Your task to perform on an android device: Go to CNN.com Image 0: 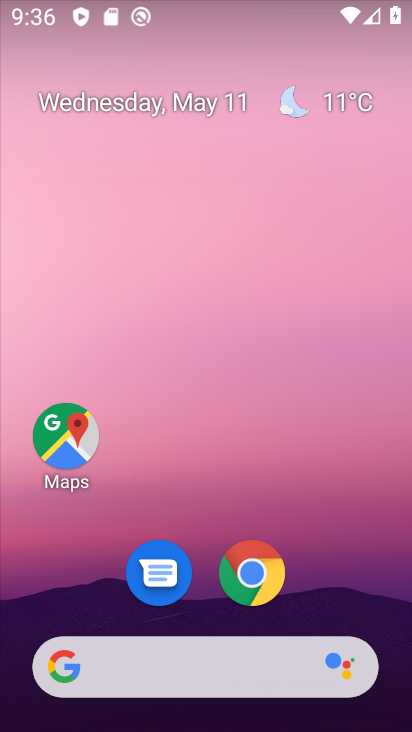
Step 0: drag from (355, 612) to (202, 14)
Your task to perform on an android device: Go to CNN.com Image 1: 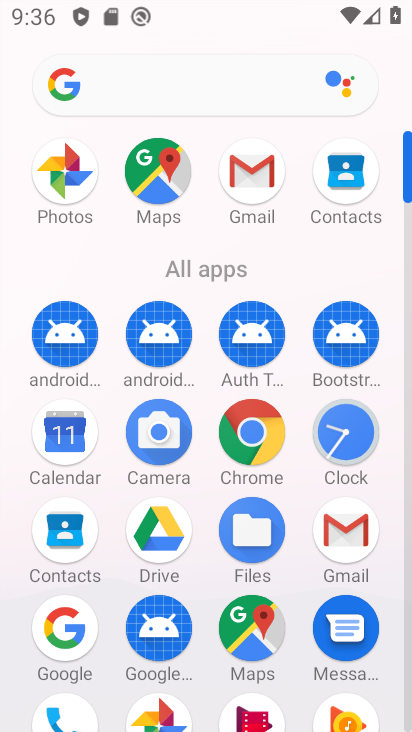
Step 1: drag from (280, 475) to (248, 78)
Your task to perform on an android device: Go to CNN.com Image 2: 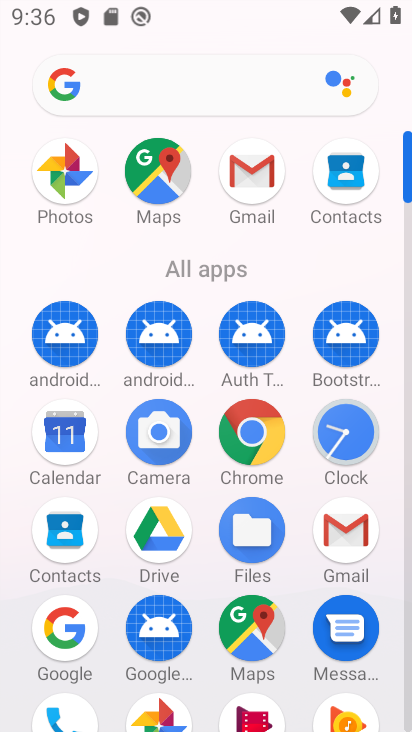
Step 2: drag from (307, 499) to (281, 50)
Your task to perform on an android device: Go to CNN.com Image 3: 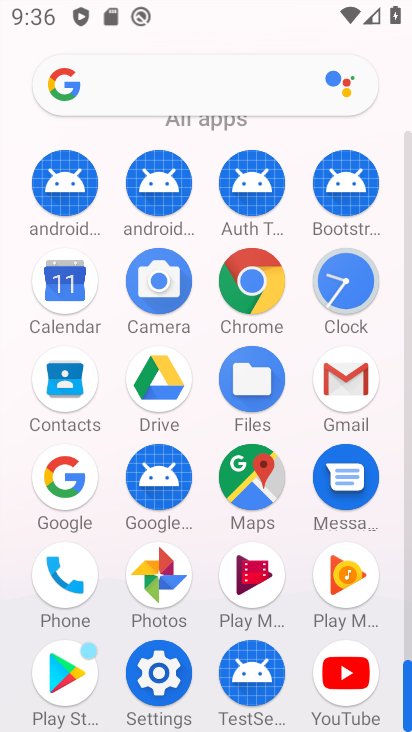
Step 3: drag from (295, 276) to (307, 607)
Your task to perform on an android device: Go to CNN.com Image 4: 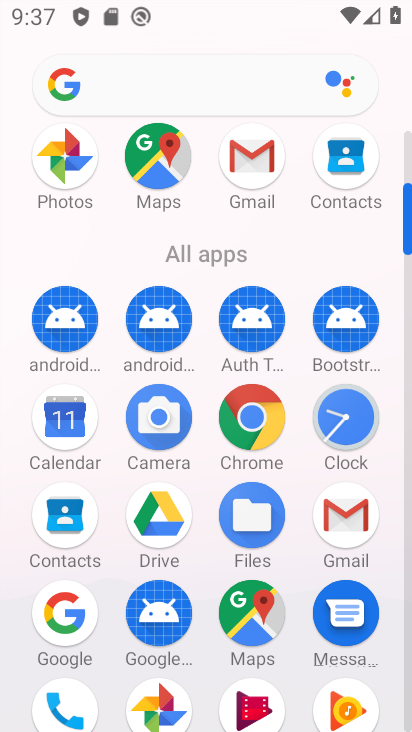
Step 4: click (249, 423)
Your task to perform on an android device: Go to CNN.com Image 5: 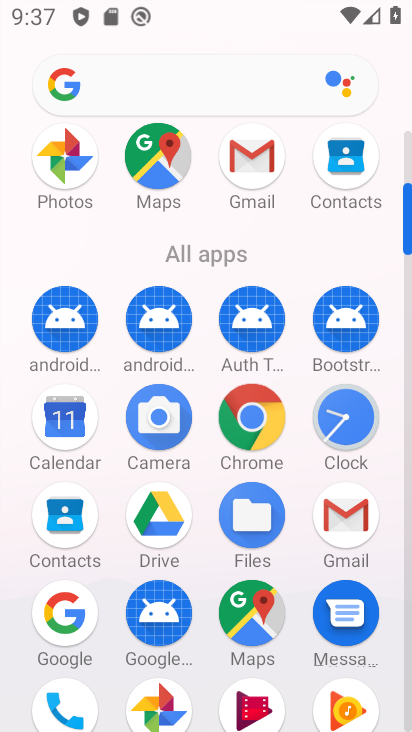
Step 5: click (251, 421)
Your task to perform on an android device: Go to CNN.com Image 6: 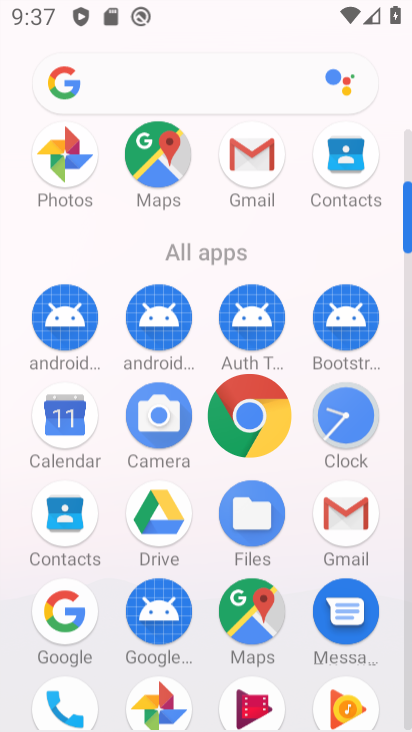
Step 6: click (252, 416)
Your task to perform on an android device: Go to CNN.com Image 7: 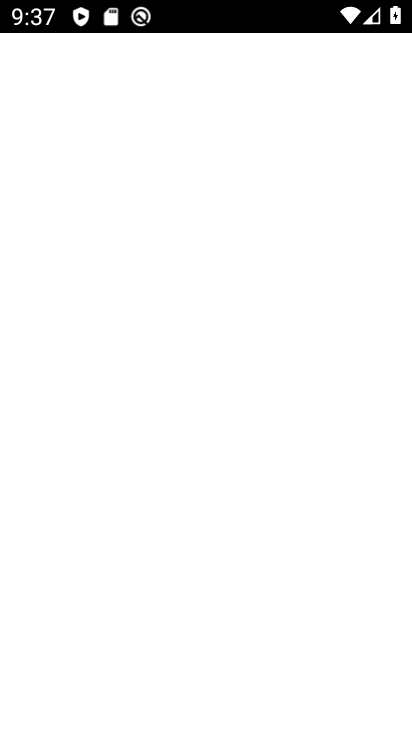
Step 7: click (253, 416)
Your task to perform on an android device: Go to CNN.com Image 8: 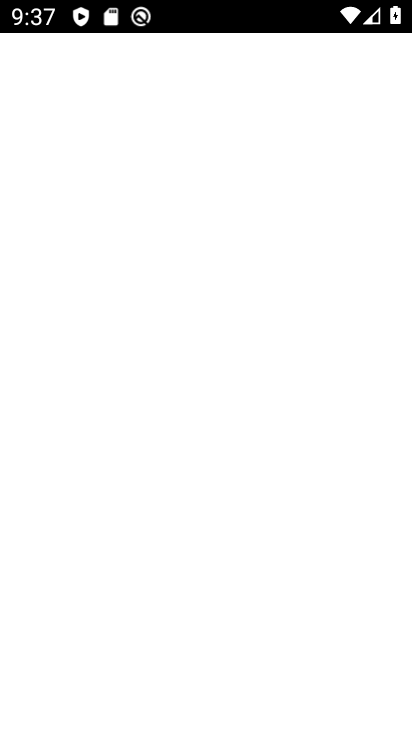
Step 8: click (252, 407)
Your task to perform on an android device: Go to CNN.com Image 9: 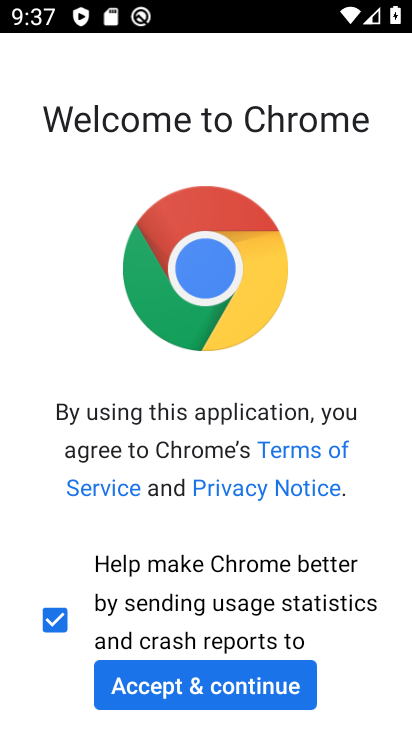
Step 9: click (214, 680)
Your task to perform on an android device: Go to CNN.com Image 10: 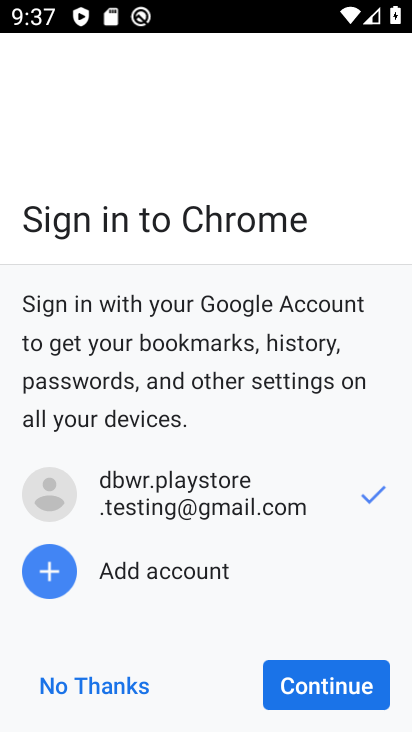
Step 10: click (330, 680)
Your task to perform on an android device: Go to CNN.com Image 11: 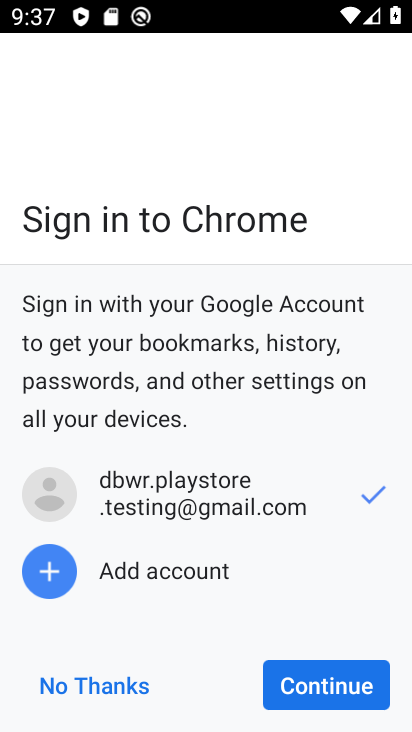
Step 11: click (330, 679)
Your task to perform on an android device: Go to CNN.com Image 12: 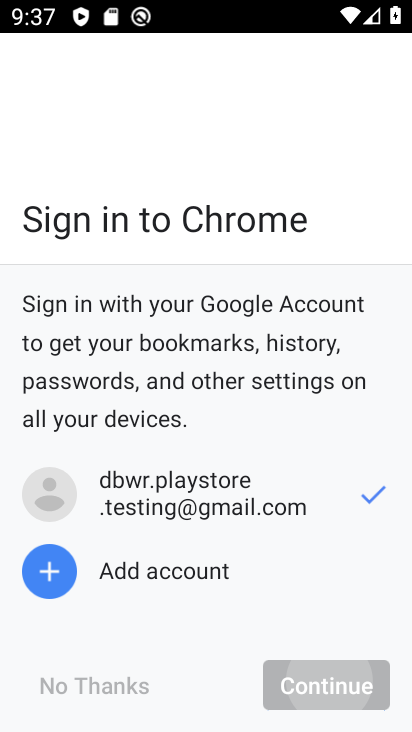
Step 12: click (330, 679)
Your task to perform on an android device: Go to CNN.com Image 13: 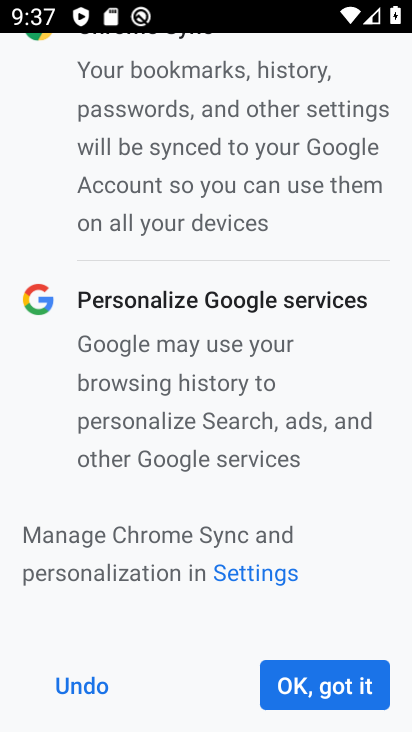
Step 13: click (329, 689)
Your task to perform on an android device: Go to CNN.com Image 14: 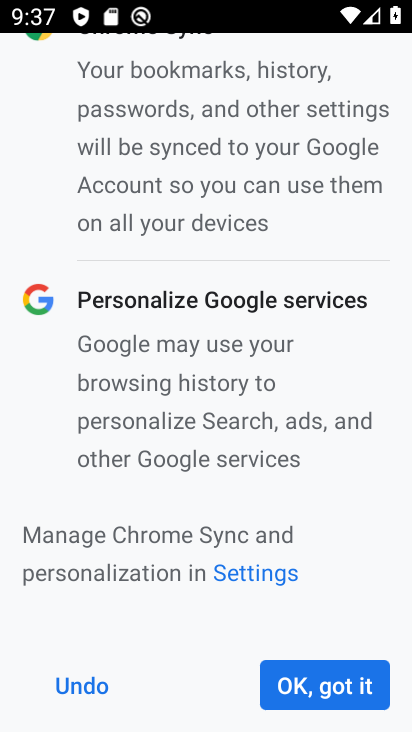
Step 14: click (330, 689)
Your task to perform on an android device: Go to CNN.com Image 15: 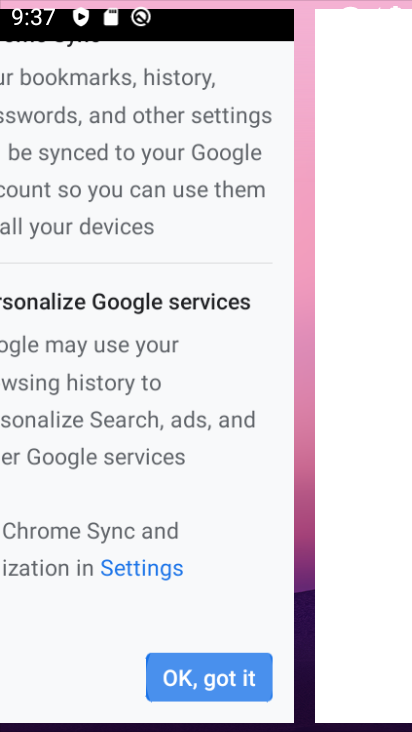
Step 15: click (331, 688)
Your task to perform on an android device: Go to CNN.com Image 16: 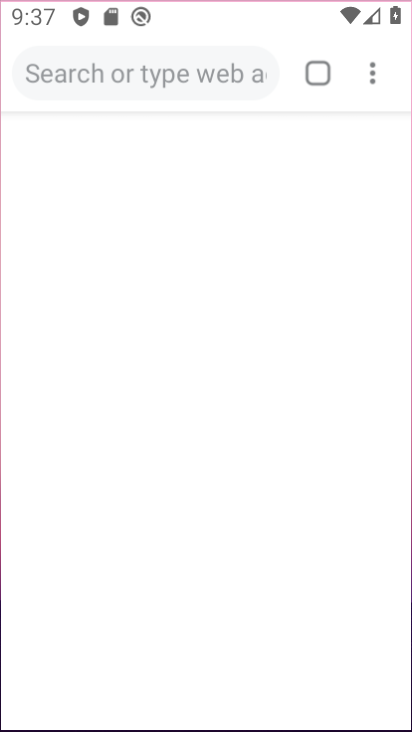
Step 16: click (334, 684)
Your task to perform on an android device: Go to CNN.com Image 17: 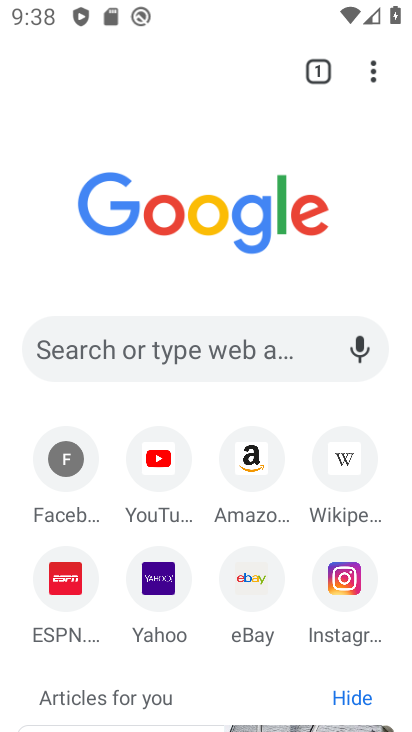
Step 17: click (372, 66)
Your task to perform on an android device: Go to CNN.com Image 18: 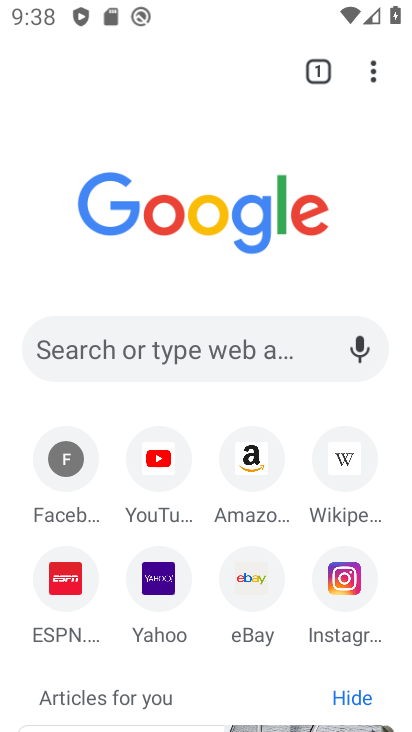
Step 18: click (372, 66)
Your task to perform on an android device: Go to CNN.com Image 19: 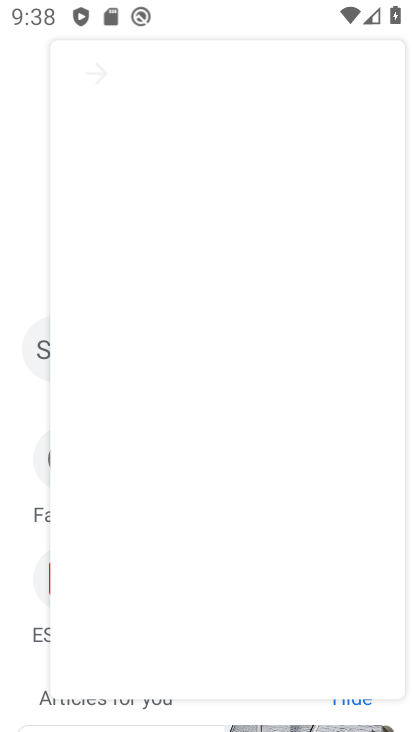
Step 19: click (372, 66)
Your task to perform on an android device: Go to CNN.com Image 20: 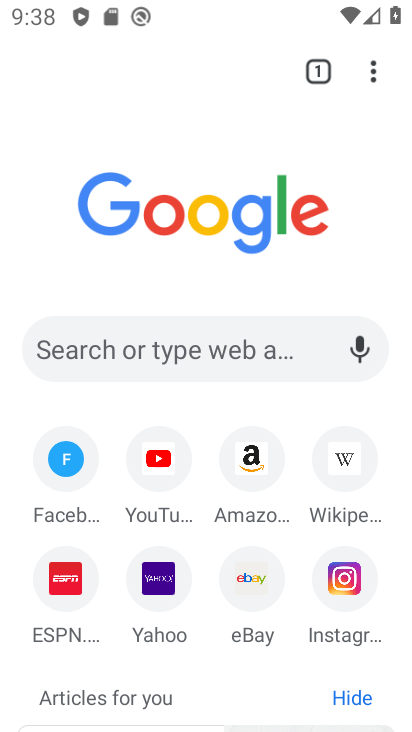
Step 20: click (373, 72)
Your task to perform on an android device: Go to CNN.com Image 21: 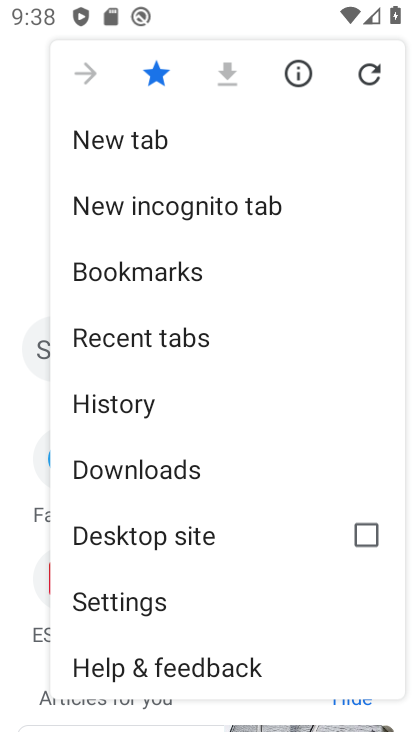
Step 21: click (27, 245)
Your task to perform on an android device: Go to CNN.com Image 22: 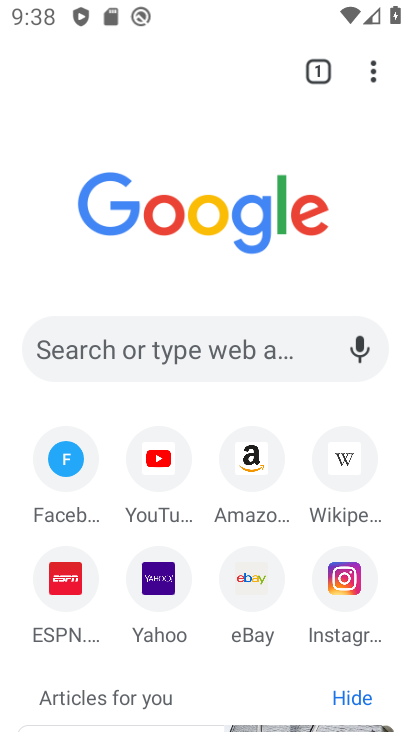
Step 22: click (26, 244)
Your task to perform on an android device: Go to CNN.com Image 23: 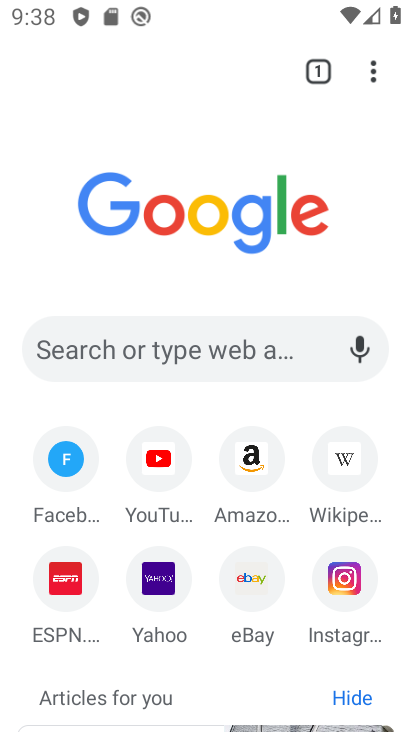
Step 23: click (126, 334)
Your task to perform on an android device: Go to CNN.com Image 24: 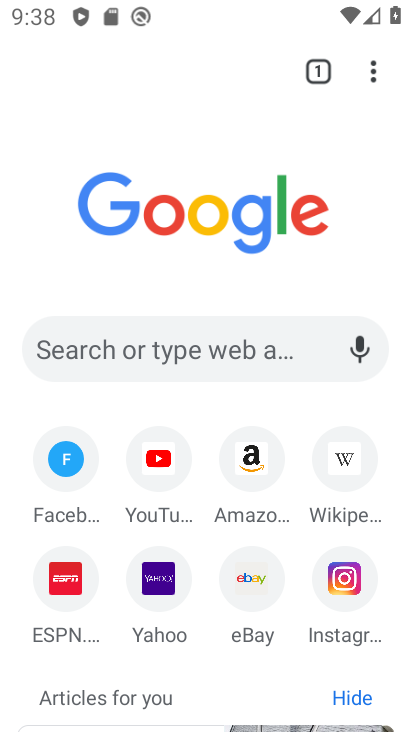
Step 24: click (101, 332)
Your task to perform on an android device: Go to CNN.com Image 25: 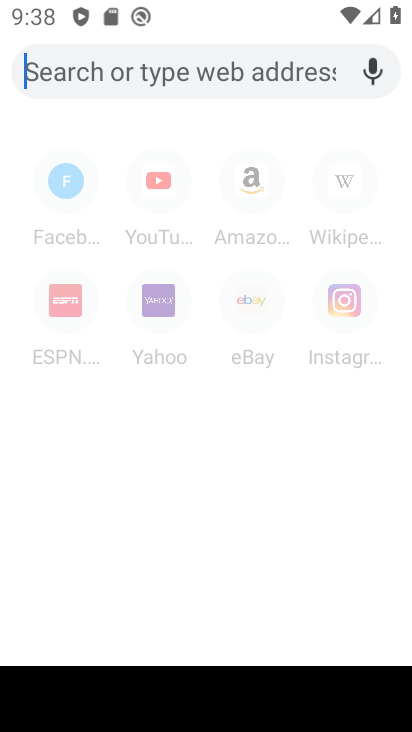
Step 25: click (44, 72)
Your task to perform on an android device: Go to CNN.com Image 26: 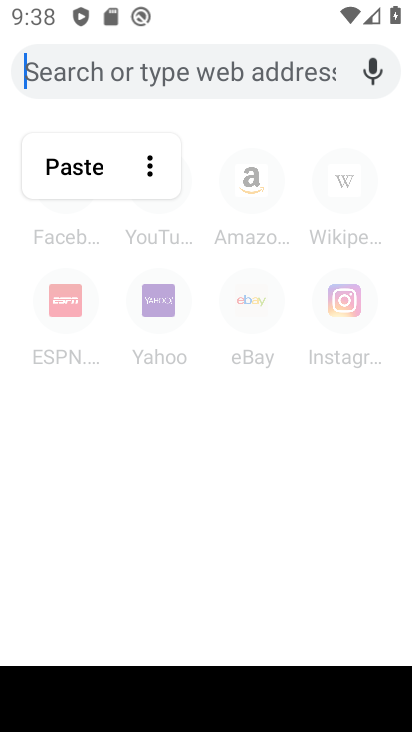
Step 26: type "cnn,com"
Your task to perform on an android device: Go to CNN.com Image 27: 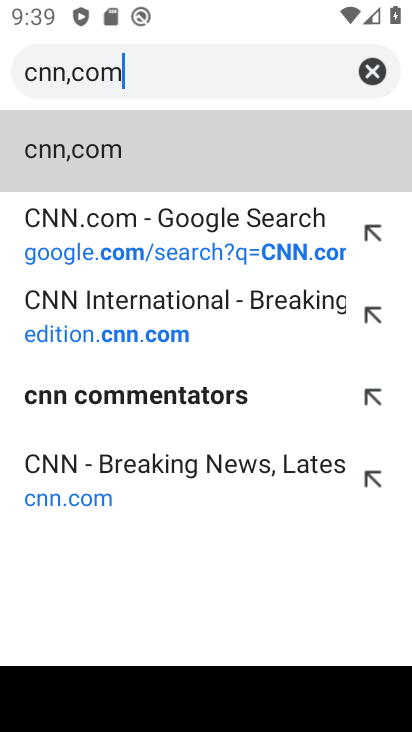
Step 27: click (113, 338)
Your task to perform on an android device: Go to CNN.com Image 28: 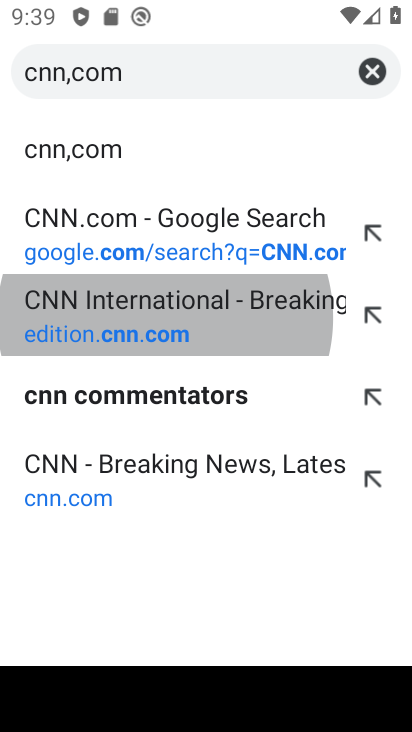
Step 28: click (113, 338)
Your task to perform on an android device: Go to CNN.com Image 29: 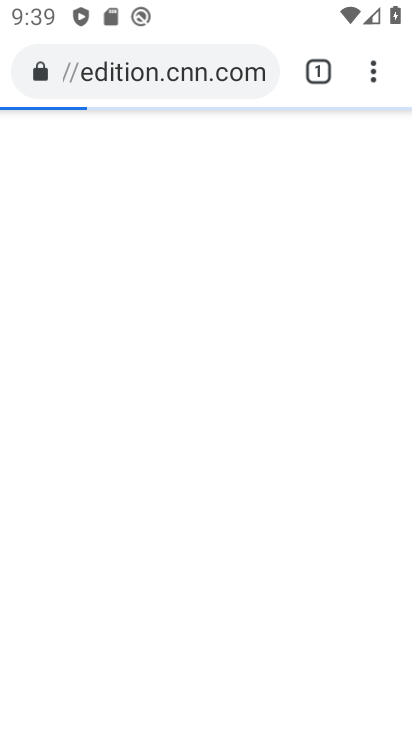
Step 29: click (113, 338)
Your task to perform on an android device: Go to CNN.com Image 30: 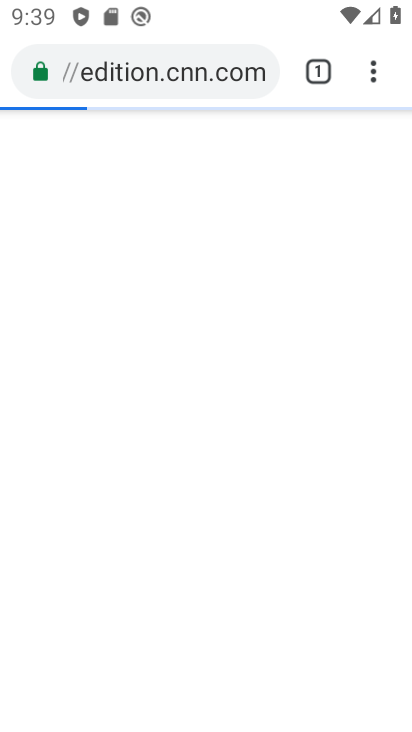
Step 30: click (113, 338)
Your task to perform on an android device: Go to CNN.com Image 31: 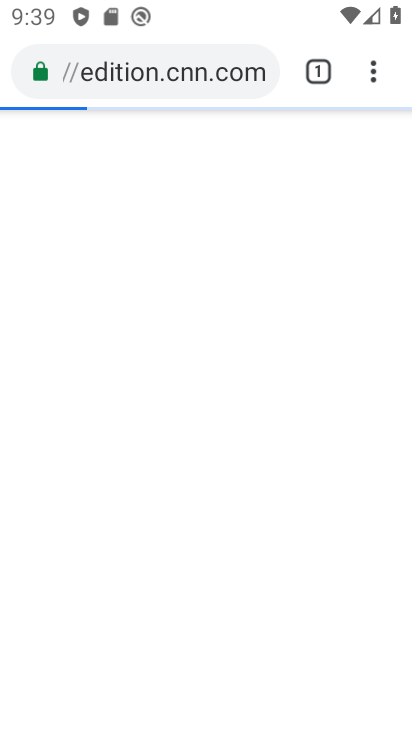
Step 31: click (113, 337)
Your task to perform on an android device: Go to CNN.com Image 32: 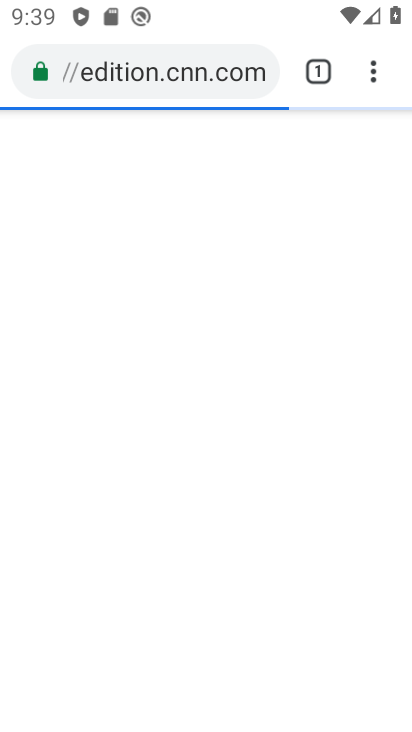
Step 32: task complete